Your task to perform on an android device: check storage Image 0: 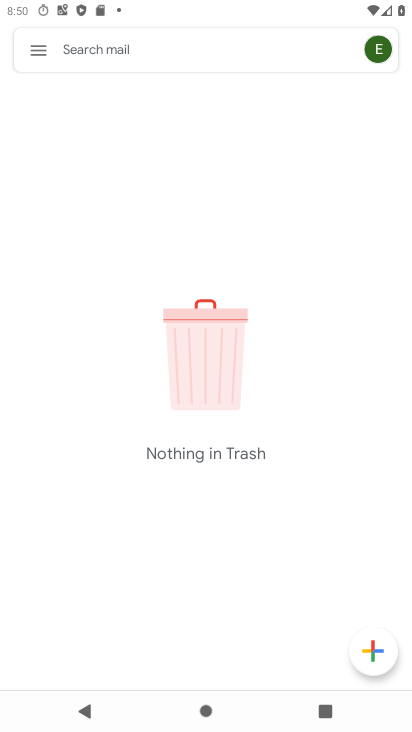
Step 0: press home button
Your task to perform on an android device: check storage Image 1: 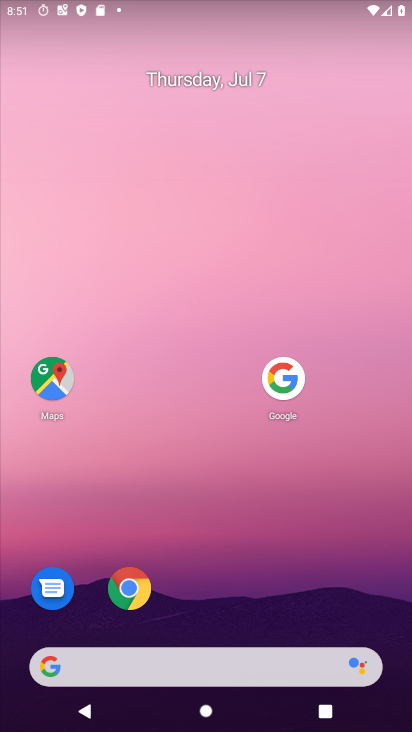
Step 1: drag from (171, 654) to (366, 72)
Your task to perform on an android device: check storage Image 2: 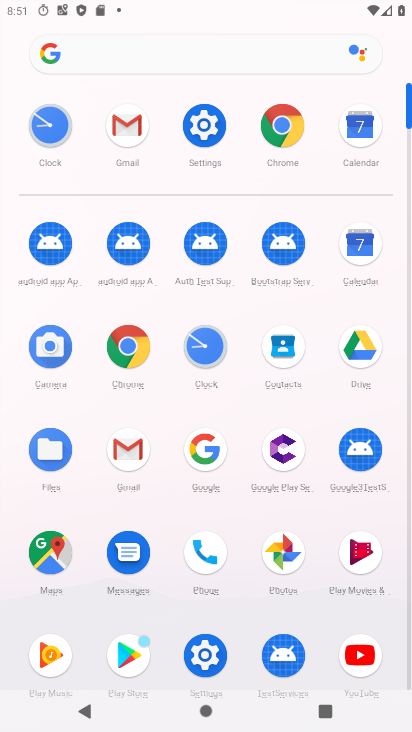
Step 2: click (203, 132)
Your task to perform on an android device: check storage Image 3: 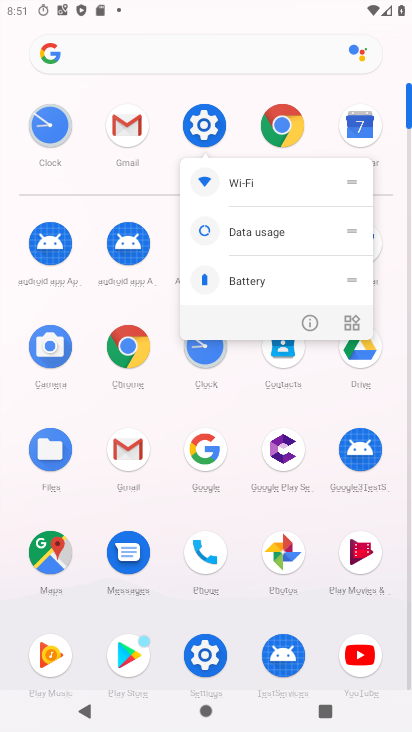
Step 3: click (208, 128)
Your task to perform on an android device: check storage Image 4: 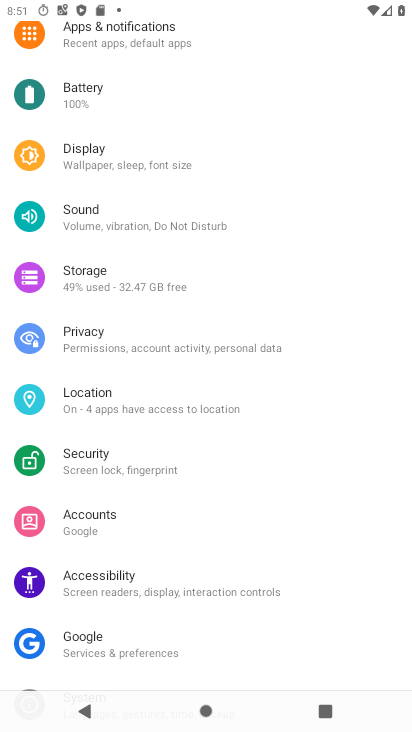
Step 4: drag from (260, 94) to (275, 577)
Your task to perform on an android device: check storage Image 5: 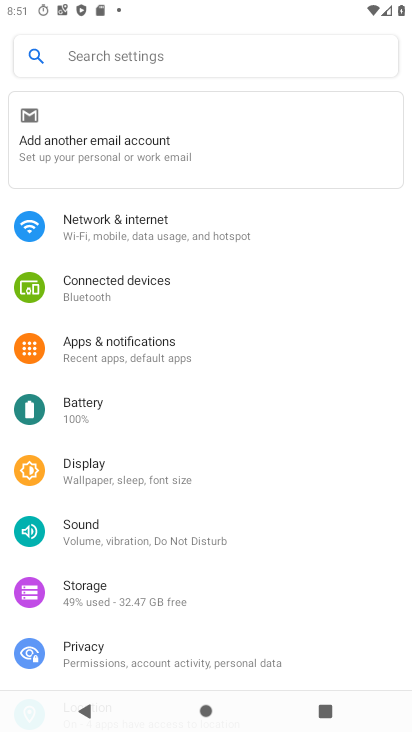
Step 5: click (114, 598)
Your task to perform on an android device: check storage Image 6: 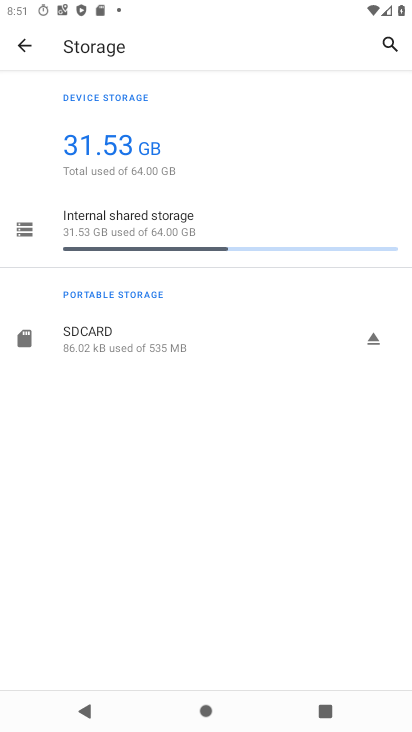
Step 6: task complete